Your task to perform on an android device: check data usage Image 0: 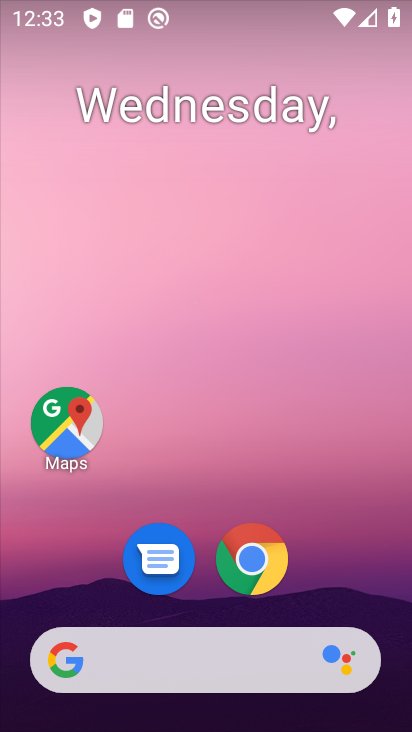
Step 0: drag from (314, 584) to (287, 124)
Your task to perform on an android device: check data usage Image 1: 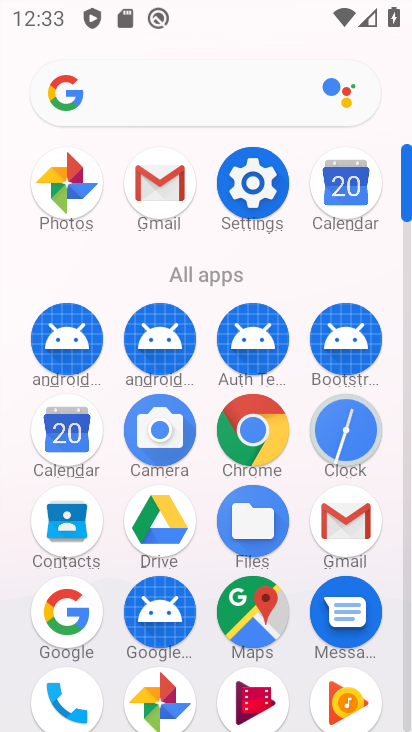
Step 1: click (252, 187)
Your task to perform on an android device: check data usage Image 2: 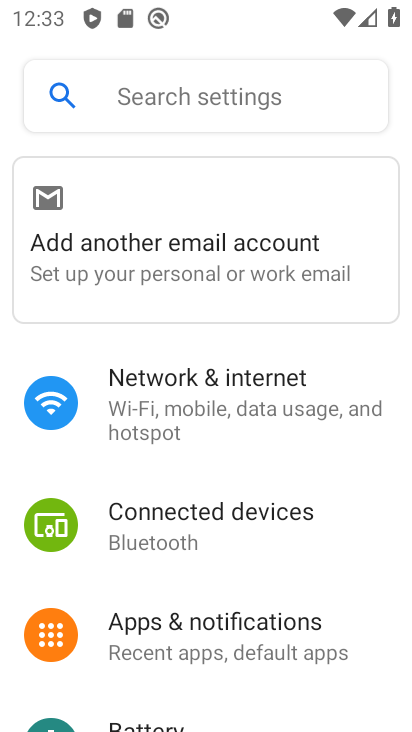
Step 2: click (158, 413)
Your task to perform on an android device: check data usage Image 3: 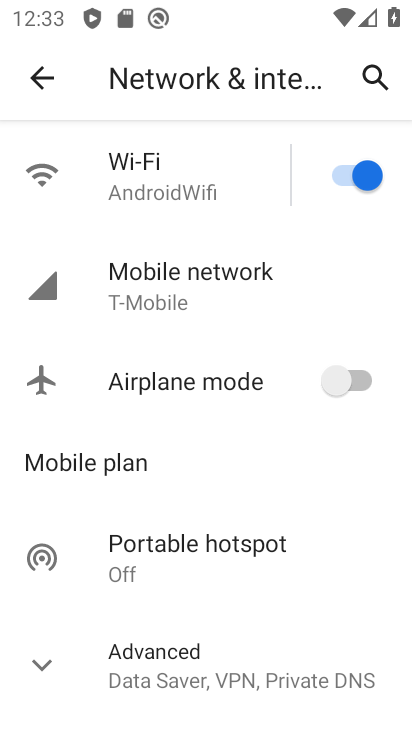
Step 3: click (172, 296)
Your task to perform on an android device: check data usage Image 4: 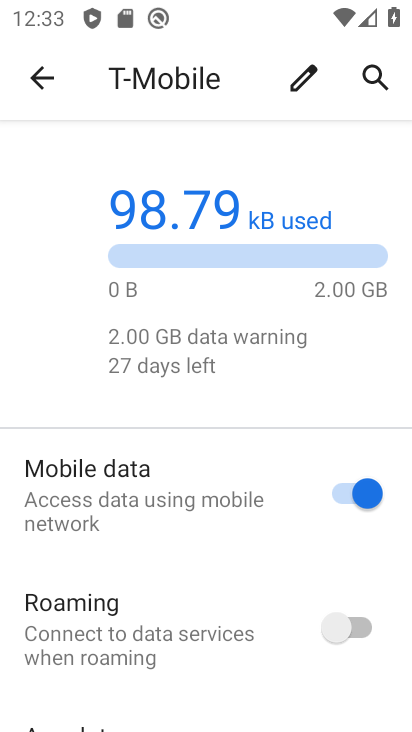
Step 4: task complete